Your task to perform on an android device: Open maps Image 0: 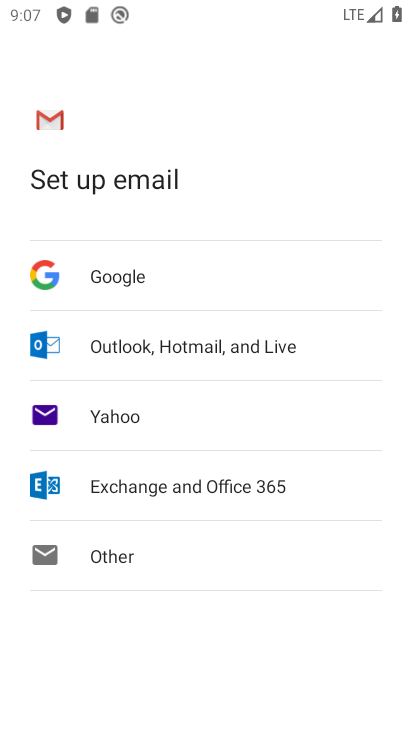
Step 0: press home button
Your task to perform on an android device: Open maps Image 1: 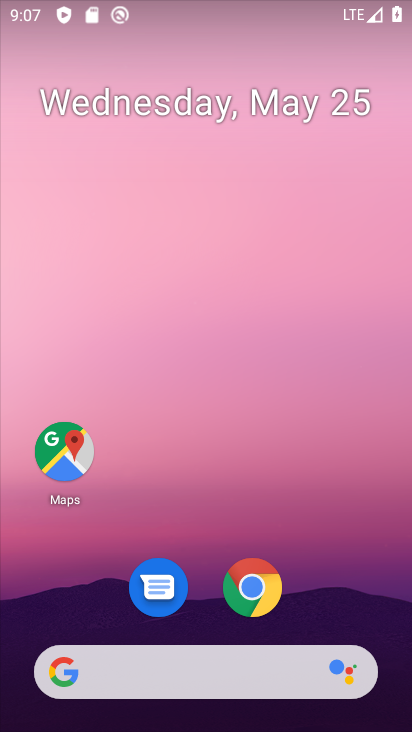
Step 1: click (54, 452)
Your task to perform on an android device: Open maps Image 2: 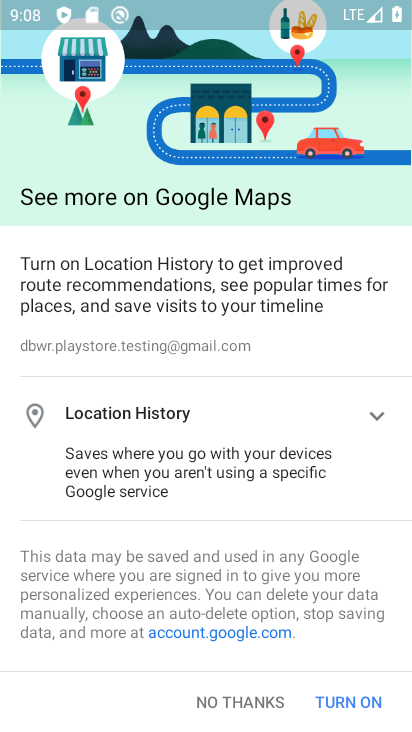
Step 2: click (242, 700)
Your task to perform on an android device: Open maps Image 3: 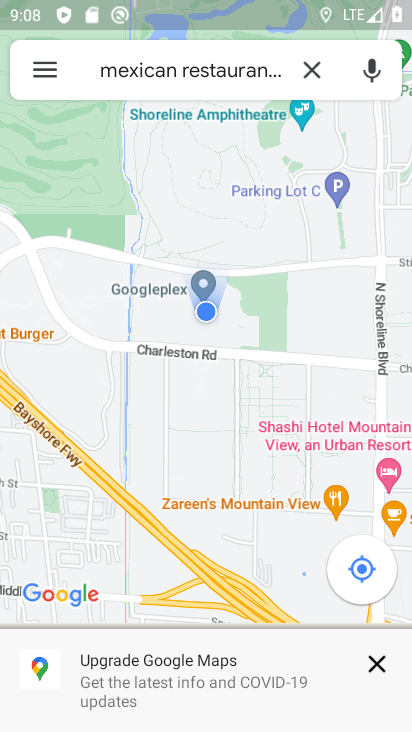
Step 3: click (372, 660)
Your task to perform on an android device: Open maps Image 4: 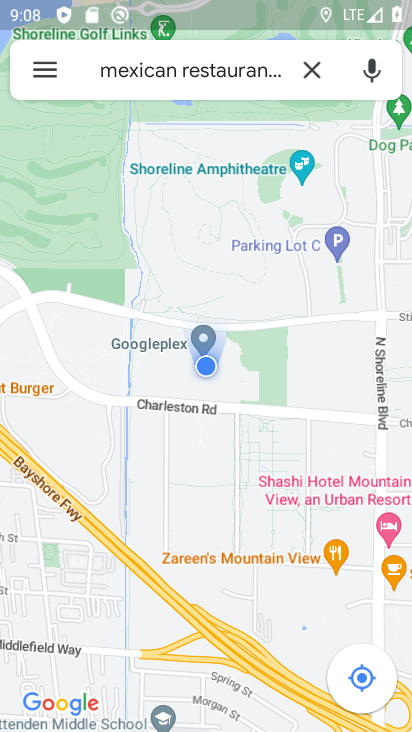
Step 4: task complete